Your task to perform on an android device: What's the weather? Image 0: 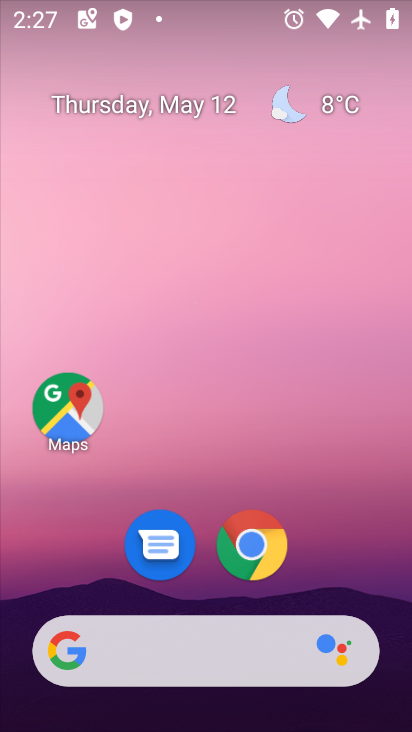
Step 0: click (320, 101)
Your task to perform on an android device: What's the weather? Image 1: 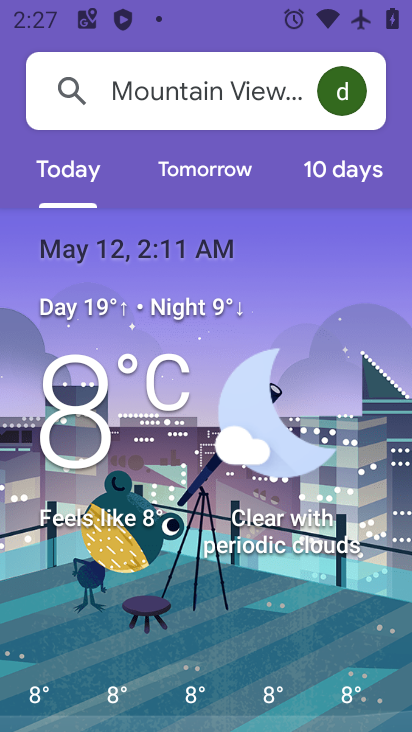
Step 1: task complete